Your task to perform on an android device: change the clock style Image 0: 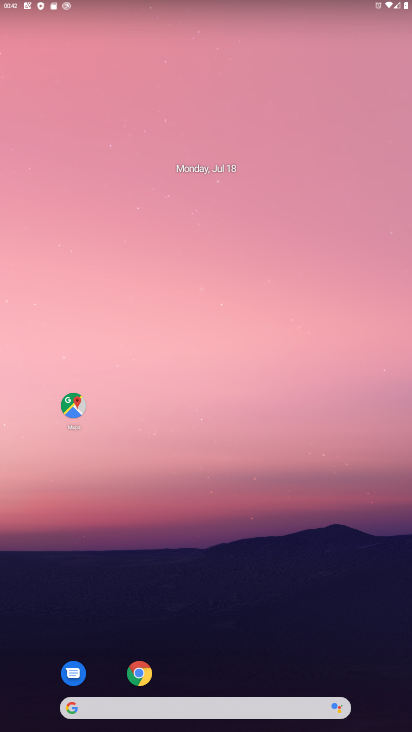
Step 0: drag from (222, 670) to (164, 68)
Your task to perform on an android device: change the clock style Image 1: 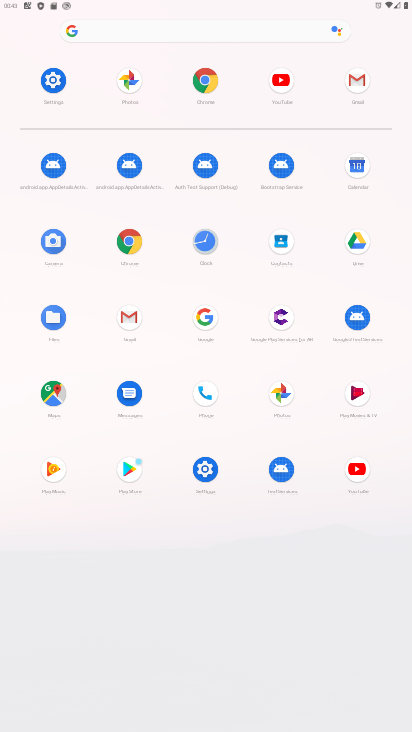
Step 1: click (201, 249)
Your task to perform on an android device: change the clock style Image 2: 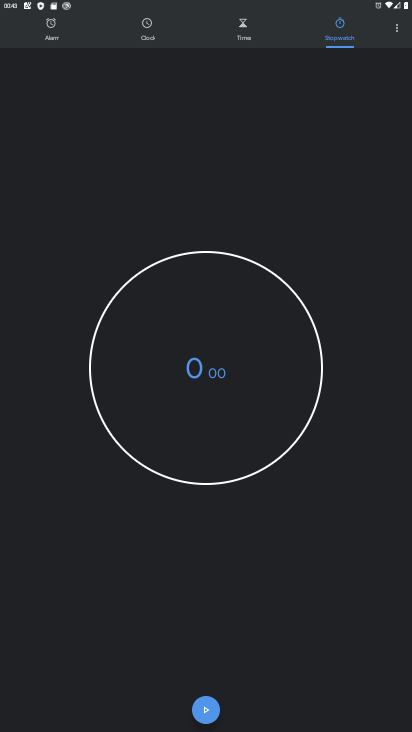
Step 2: task complete